Your task to perform on an android device: Open calendar and show me the second week of next month Image 0: 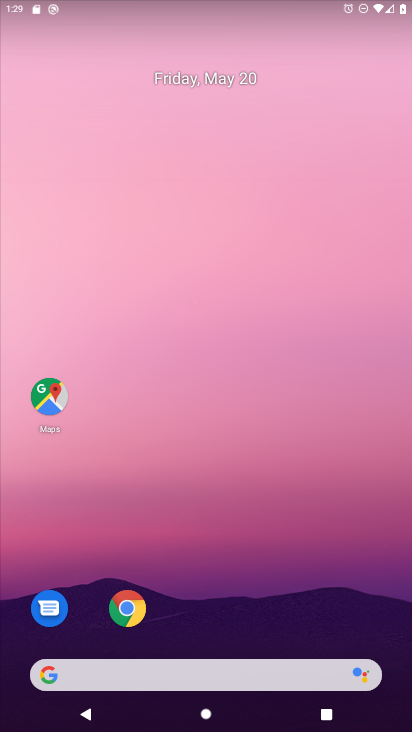
Step 0: press home button
Your task to perform on an android device: Open calendar and show me the second week of next month Image 1: 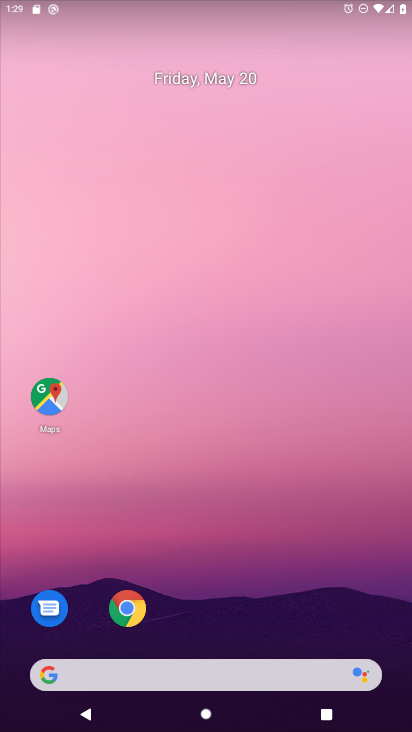
Step 1: drag from (288, 489) to (262, 102)
Your task to perform on an android device: Open calendar and show me the second week of next month Image 2: 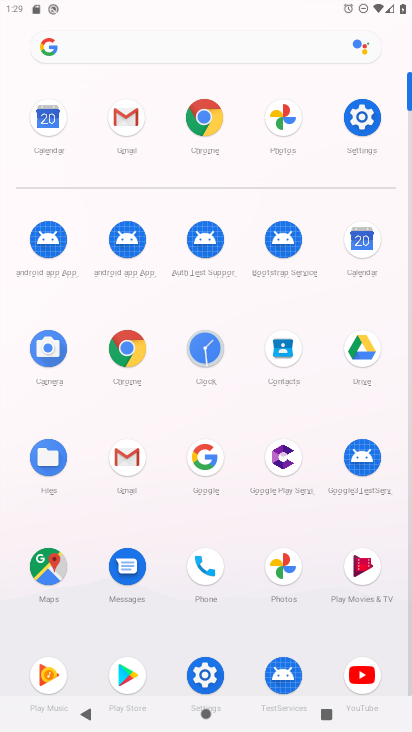
Step 2: click (343, 234)
Your task to perform on an android device: Open calendar and show me the second week of next month Image 3: 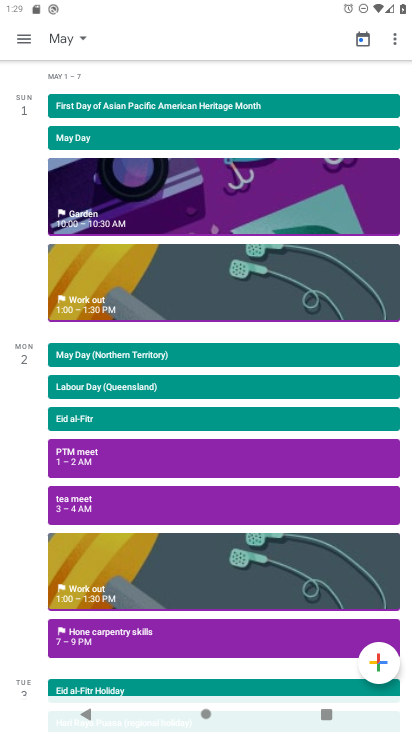
Step 3: click (64, 32)
Your task to perform on an android device: Open calendar and show me the second week of next month Image 4: 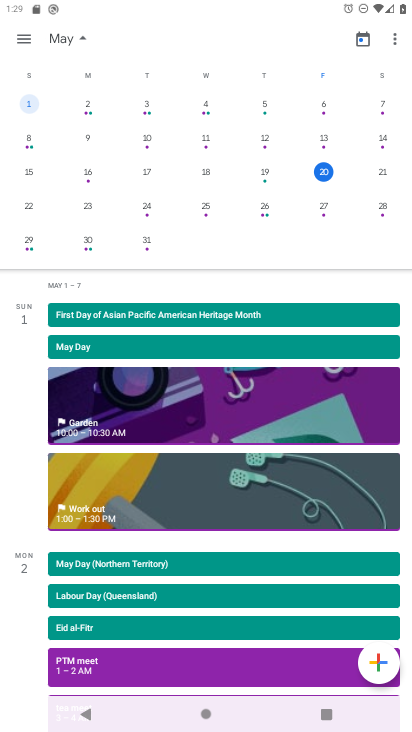
Step 4: drag from (403, 198) to (8, 143)
Your task to perform on an android device: Open calendar and show me the second week of next month Image 5: 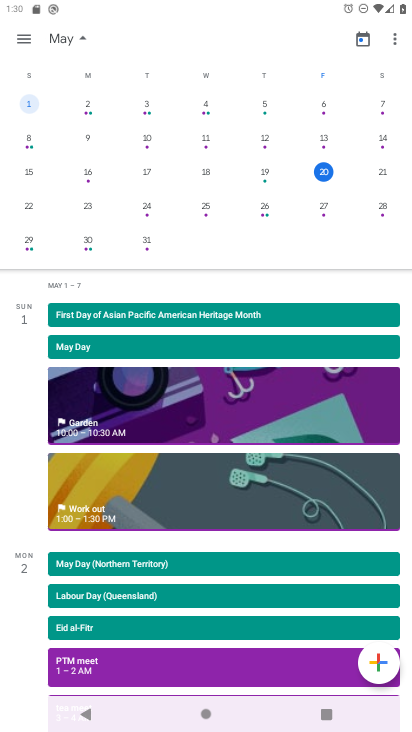
Step 5: drag from (401, 180) to (83, 148)
Your task to perform on an android device: Open calendar and show me the second week of next month Image 6: 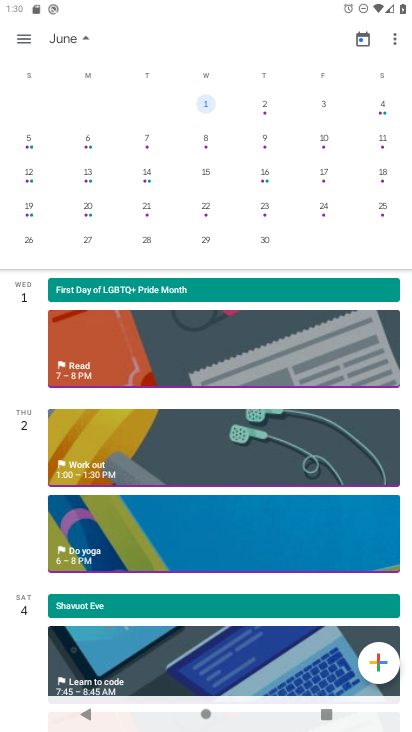
Step 6: click (202, 137)
Your task to perform on an android device: Open calendar and show me the second week of next month Image 7: 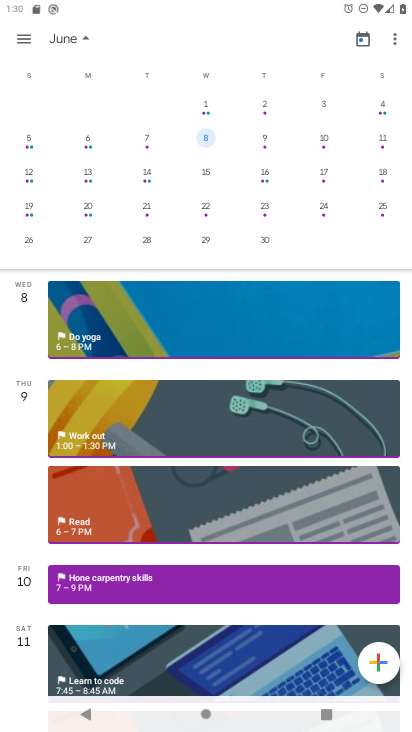
Step 7: task complete